Your task to perform on an android device: Show the shopping cart on target. Search for logitech g910 on target, select the first entry, add it to the cart, then select checkout. Image 0: 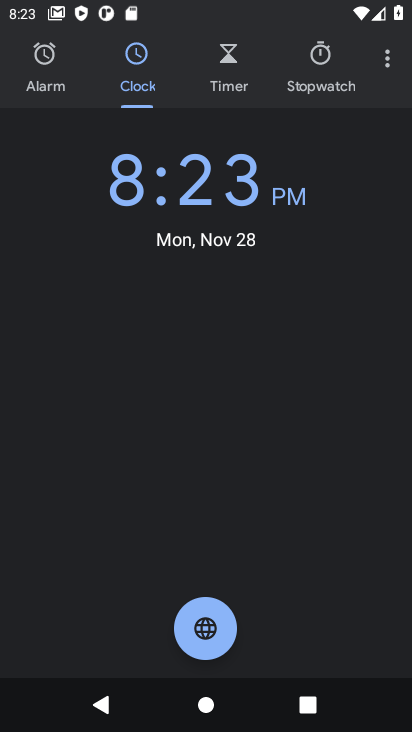
Step 0: press home button
Your task to perform on an android device: Show the shopping cart on target. Search for logitech g910 on target, select the first entry, add it to the cart, then select checkout. Image 1: 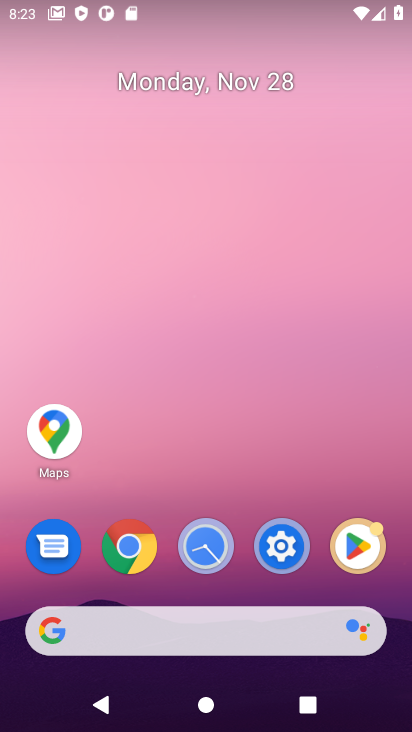
Step 1: click (130, 550)
Your task to perform on an android device: Show the shopping cart on target. Search for logitech g910 on target, select the first entry, add it to the cart, then select checkout. Image 2: 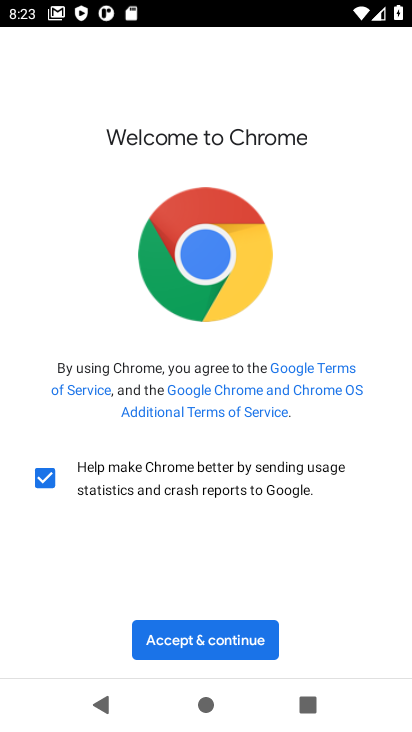
Step 2: click (187, 634)
Your task to perform on an android device: Show the shopping cart on target. Search for logitech g910 on target, select the first entry, add it to the cart, then select checkout. Image 3: 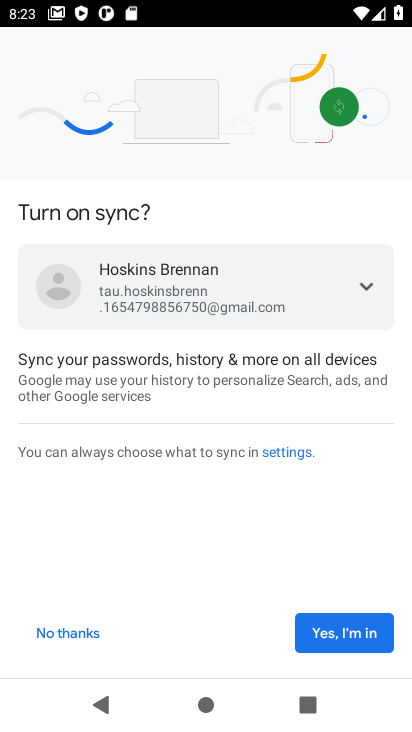
Step 3: click (360, 637)
Your task to perform on an android device: Show the shopping cart on target. Search for logitech g910 on target, select the first entry, add it to the cart, then select checkout. Image 4: 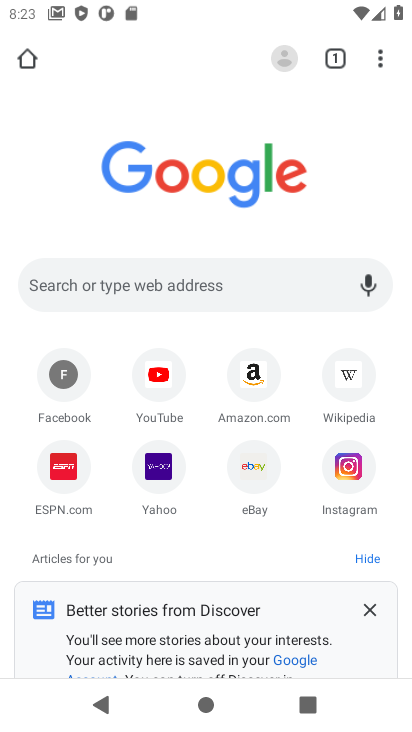
Step 4: click (98, 282)
Your task to perform on an android device: Show the shopping cart on target. Search for logitech g910 on target, select the first entry, add it to the cart, then select checkout. Image 5: 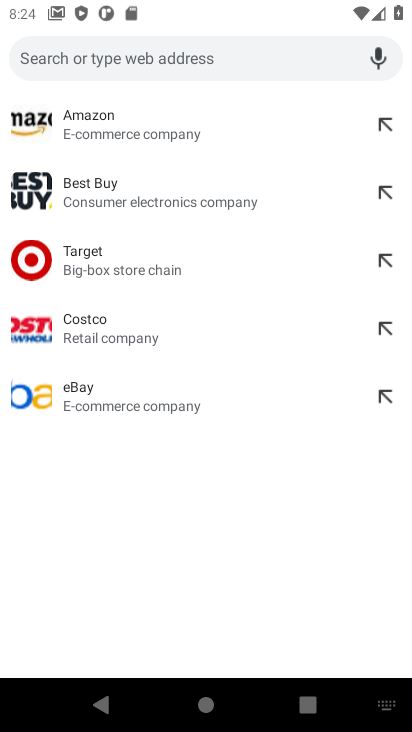
Step 5: click (90, 263)
Your task to perform on an android device: Show the shopping cart on target. Search for logitech g910 on target, select the first entry, add it to the cart, then select checkout. Image 6: 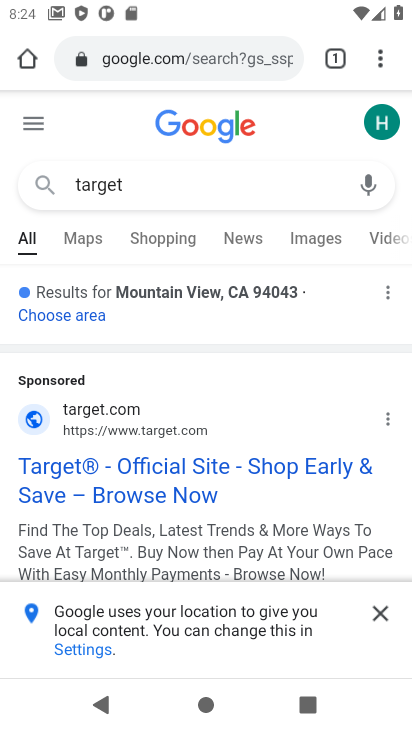
Step 6: click (380, 621)
Your task to perform on an android device: Show the shopping cart on target. Search for logitech g910 on target, select the first entry, add it to the cart, then select checkout. Image 7: 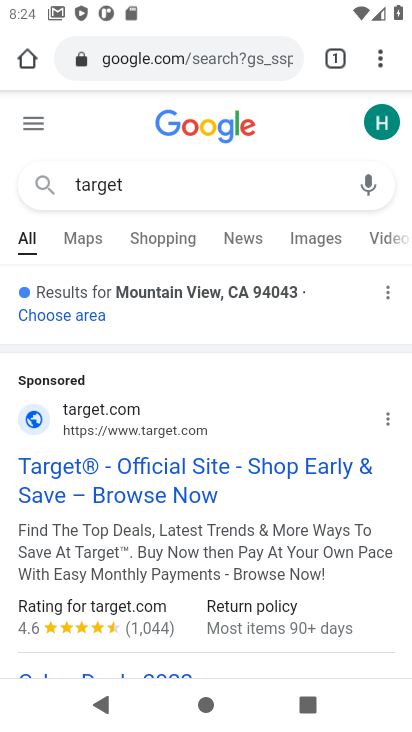
Step 7: click (138, 463)
Your task to perform on an android device: Show the shopping cart on target. Search for logitech g910 on target, select the first entry, add it to the cart, then select checkout. Image 8: 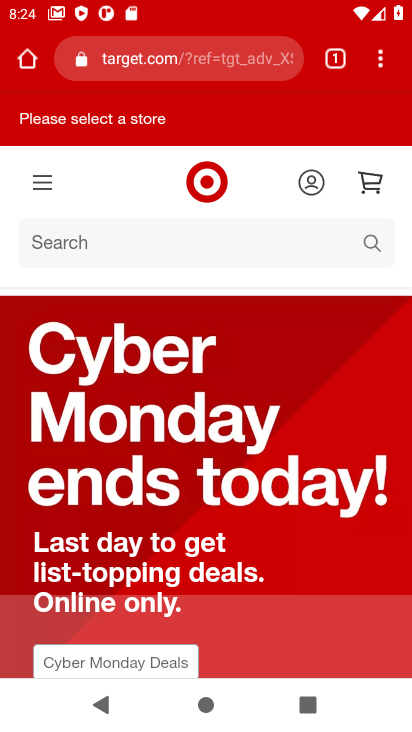
Step 8: click (366, 183)
Your task to perform on an android device: Show the shopping cart on target. Search for logitech g910 on target, select the first entry, add it to the cart, then select checkout. Image 9: 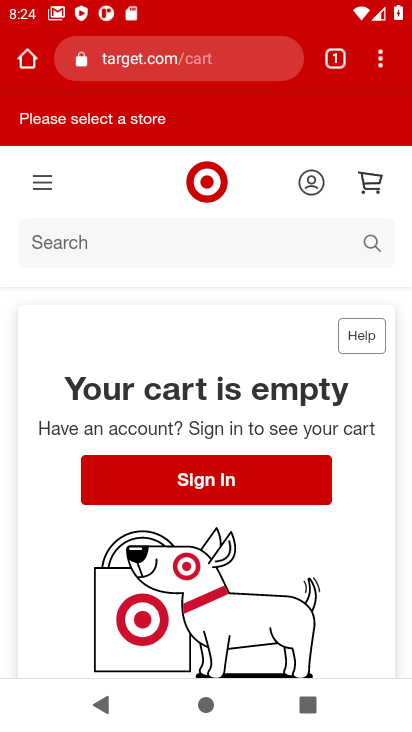
Step 9: click (152, 246)
Your task to perform on an android device: Show the shopping cart on target. Search for logitech g910 on target, select the first entry, add it to the cart, then select checkout. Image 10: 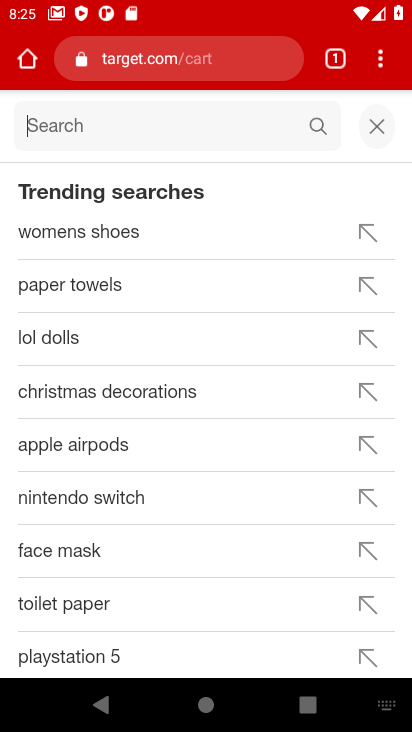
Step 10: type "logitech g910 "
Your task to perform on an android device: Show the shopping cart on target. Search for logitech g910 on target, select the first entry, add it to the cart, then select checkout. Image 11: 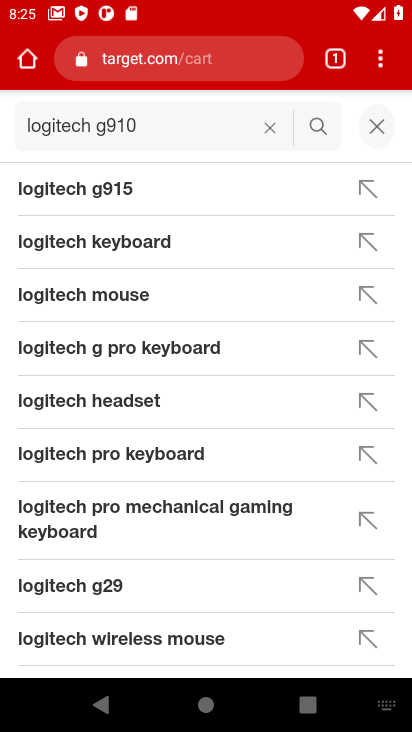
Step 11: click (315, 125)
Your task to perform on an android device: Show the shopping cart on target. Search for logitech g910 on target, select the first entry, add it to the cart, then select checkout. Image 12: 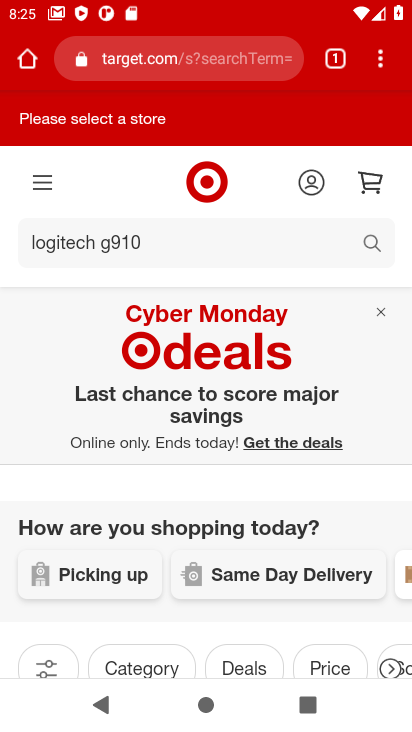
Step 12: drag from (173, 617) to (183, 272)
Your task to perform on an android device: Show the shopping cart on target. Search for logitech g910 on target, select the first entry, add it to the cart, then select checkout. Image 13: 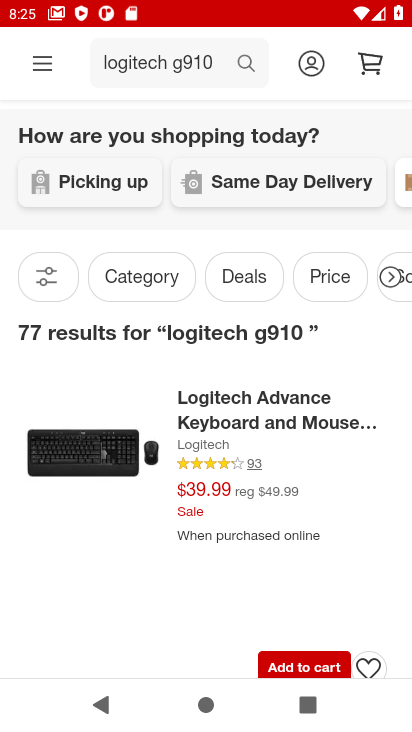
Step 13: click (96, 456)
Your task to perform on an android device: Show the shopping cart on target. Search for logitech g910 on target, select the first entry, add it to the cart, then select checkout. Image 14: 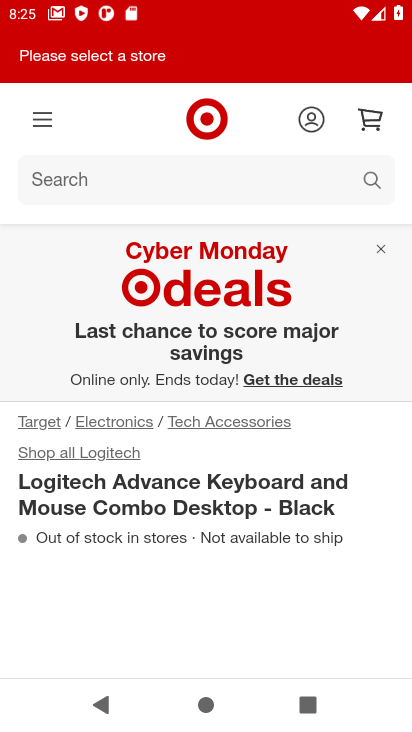
Step 14: drag from (169, 630) to (190, 380)
Your task to perform on an android device: Show the shopping cart on target. Search for logitech g910 on target, select the first entry, add it to the cart, then select checkout. Image 15: 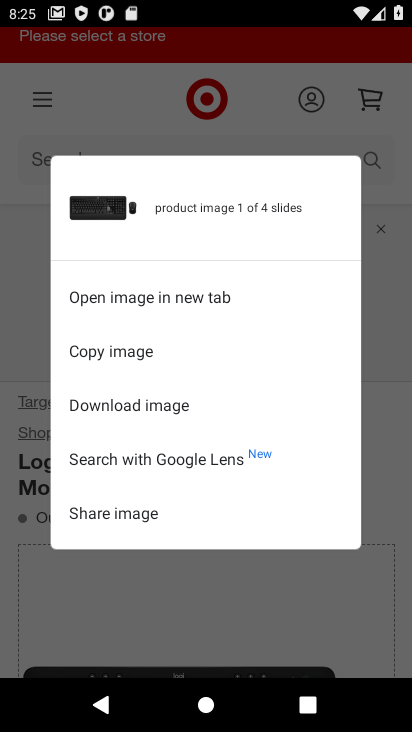
Step 15: click (357, 592)
Your task to perform on an android device: Show the shopping cart on target. Search for logitech g910 on target, select the first entry, add it to the cart, then select checkout. Image 16: 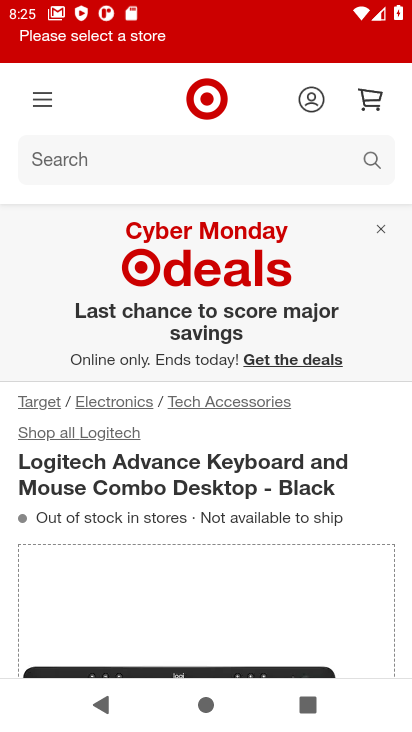
Step 16: drag from (357, 592) to (338, 173)
Your task to perform on an android device: Show the shopping cart on target. Search for logitech g910 on target, select the first entry, add it to the cart, then select checkout. Image 17: 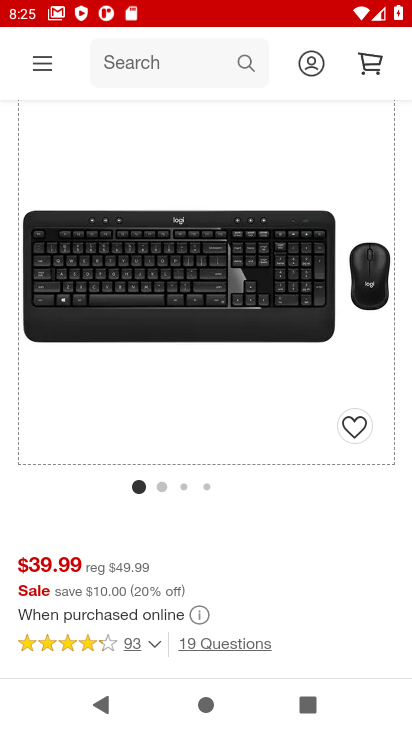
Step 17: drag from (305, 599) to (314, 258)
Your task to perform on an android device: Show the shopping cart on target. Search for logitech g910 on target, select the first entry, add it to the cart, then select checkout. Image 18: 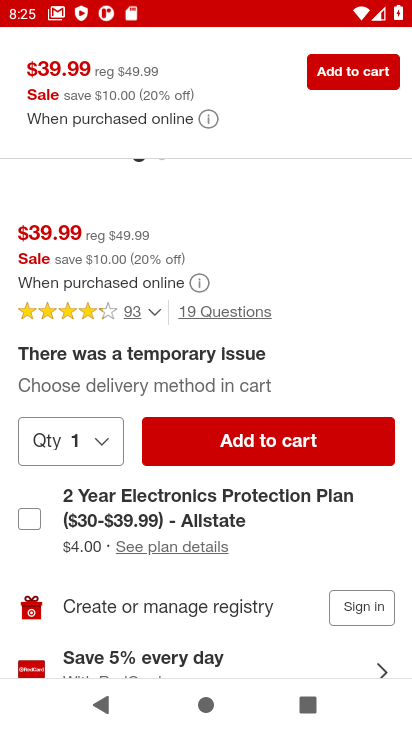
Step 18: click (247, 443)
Your task to perform on an android device: Show the shopping cart on target. Search for logitech g910 on target, select the first entry, add it to the cart, then select checkout. Image 19: 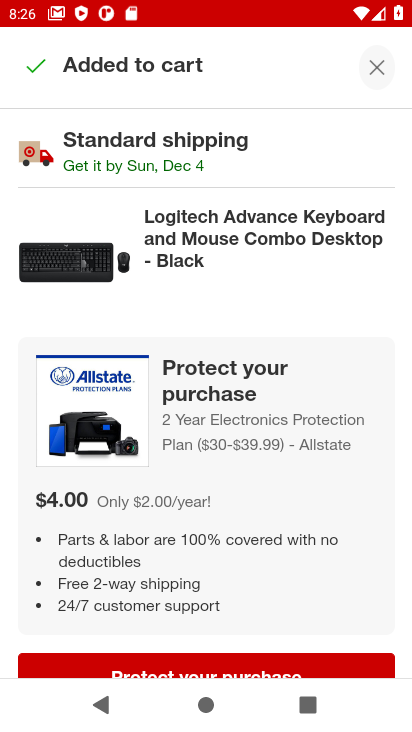
Step 19: drag from (268, 601) to (264, 306)
Your task to perform on an android device: Show the shopping cart on target. Search for logitech g910 on target, select the first entry, add it to the cart, then select checkout. Image 20: 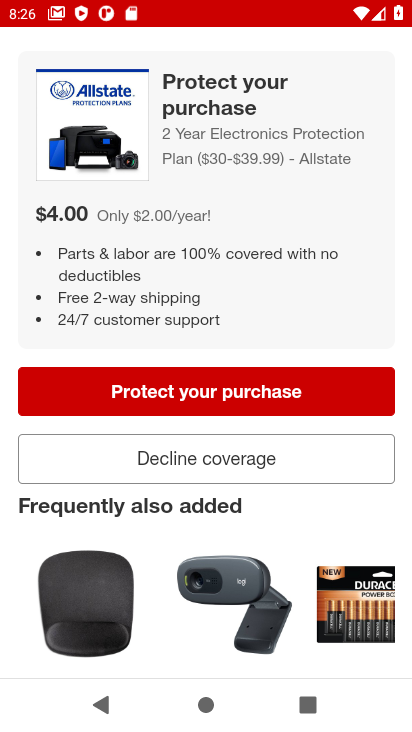
Step 20: drag from (258, 532) to (293, 53)
Your task to perform on an android device: Show the shopping cart on target. Search for logitech g910 on target, select the first entry, add it to the cart, then select checkout. Image 21: 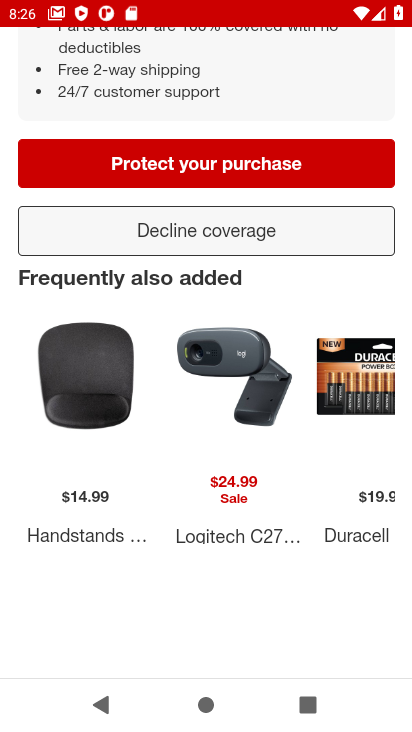
Step 21: click (215, 227)
Your task to perform on an android device: Show the shopping cart on target. Search for logitech g910 on target, select the first entry, add it to the cart, then select checkout. Image 22: 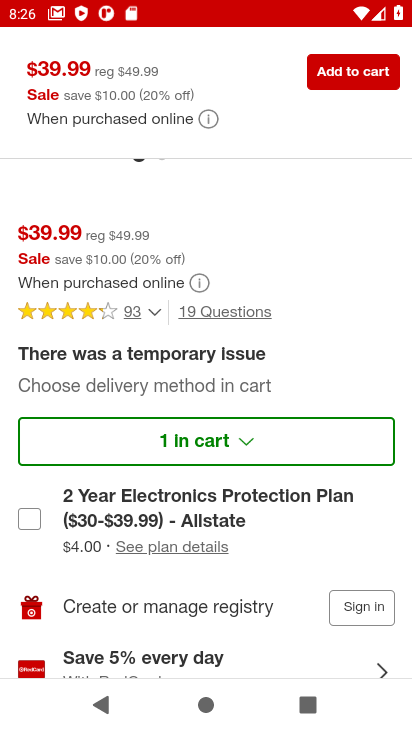
Step 22: drag from (260, 382) to (258, 176)
Your task to perform on an android device: Show the shopping cart on target. Search for logitech g910 on target, select the first entry, add it to the cart, then select checkout. Image 23: 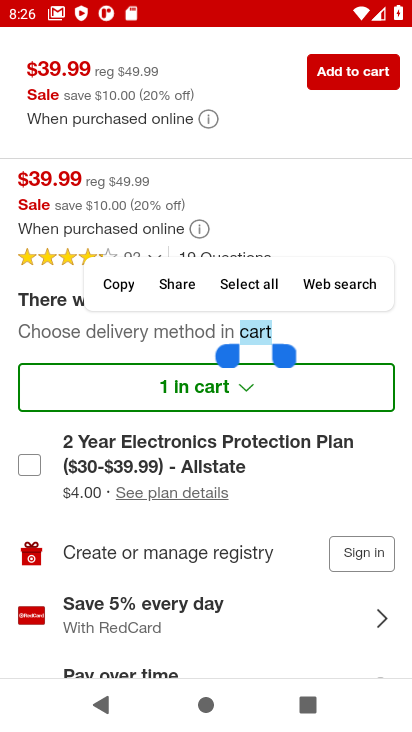
Step 23: drag from (230, 616) to (223, 205)
Your task to perform on an android device: Show the shopping cart on target. Search for logitech g910 on target, select the first entry, add it to the cart, then select checkout. Image 24: 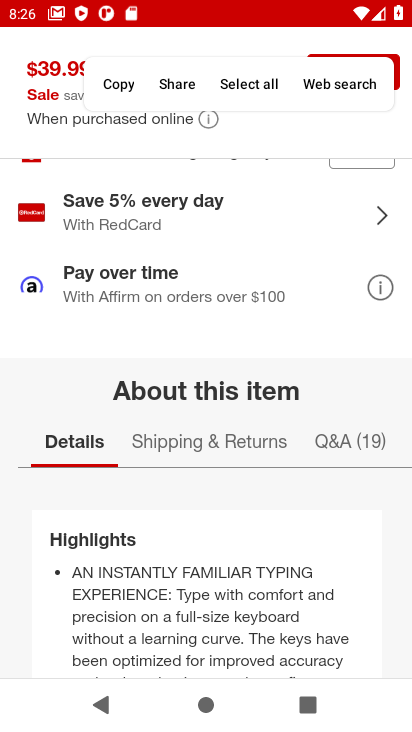
Step 24: drag from (233, 598) to (245, 266)
Your task to perform on an android device: Show the shopping cart on target. Search for logitech g910 on target, select the first entry, add it to the cart, then select checkout. Image 25: 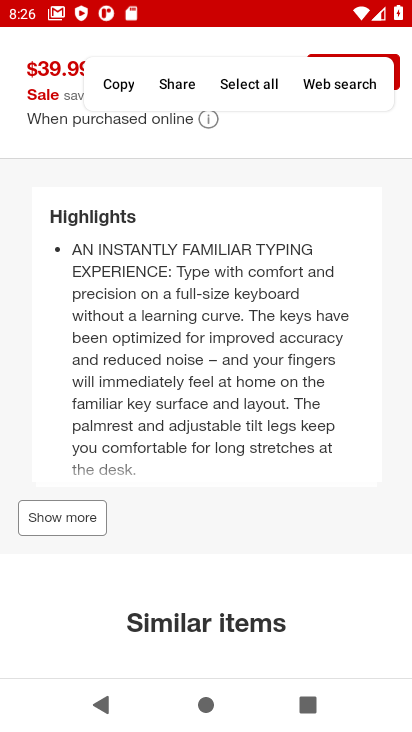
Step 25: drag from (251, 612) to (255, 116)
Your task to perform on an android device: Show the shopping cart on target. Search for logitech g910 on target, select the first entry, add it to the cart, then select checkout. Image 26: 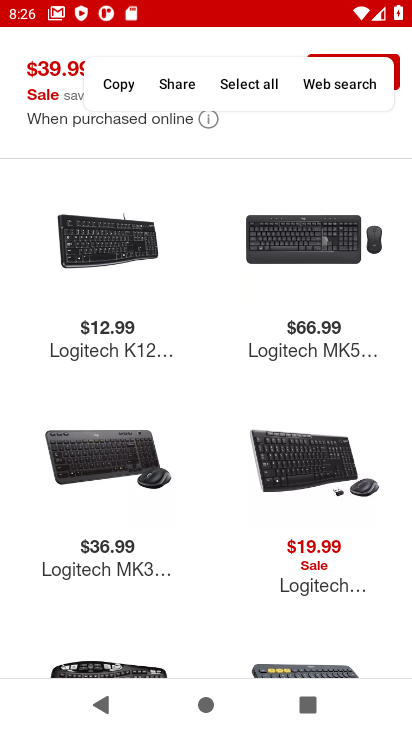
Step 26: drag from (202, 642) to (186, 171)
Your task to perform on an android device: Show the shopping cart on target. Search for logitech g910 on target, select the first entry, add it to the cart, then select checkout. Image 27: 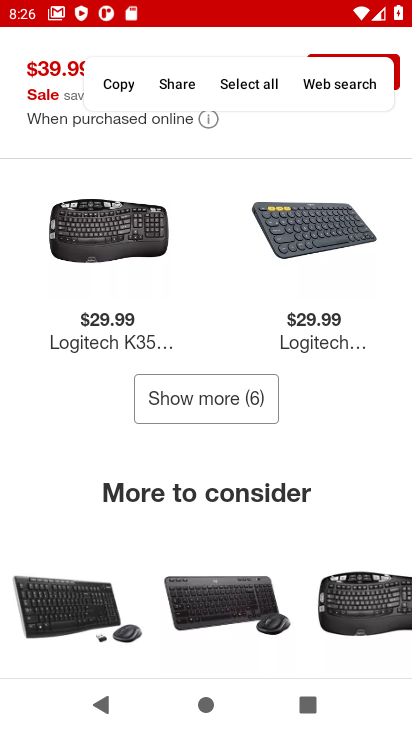
Step 27: press back button
Your task to perform on an android device: Show the shopping cart on target. Search for logitech g910 on target, select the first entry, add it to the cart, then select checkout. Image 28: 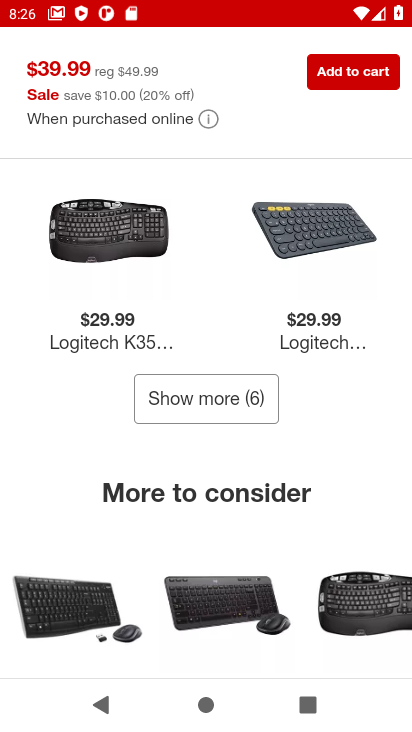
Step 28: press back button
Your task to perform on an android device: Show the shopping cart on target. Search for logitech g910 on target, select the first entry, add it to the cart, then select checkout. Image 29: 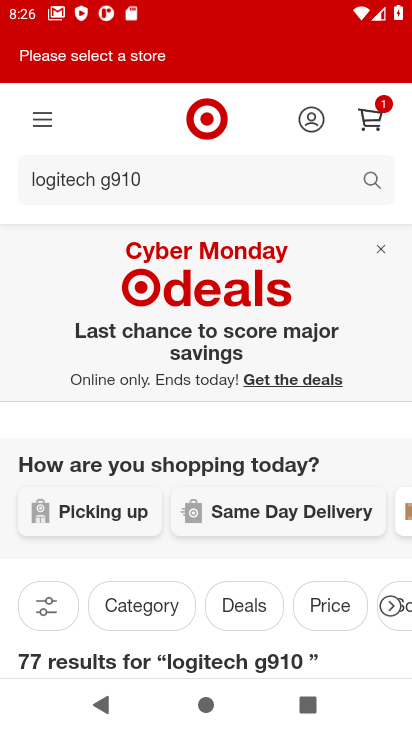
Step 29: click (373, 117)
Your task to perform on an android device: Show the shopping cart on target. Search for logitech g910 on target, select the first entry, add it to the cart, then select checkout. Image 30: 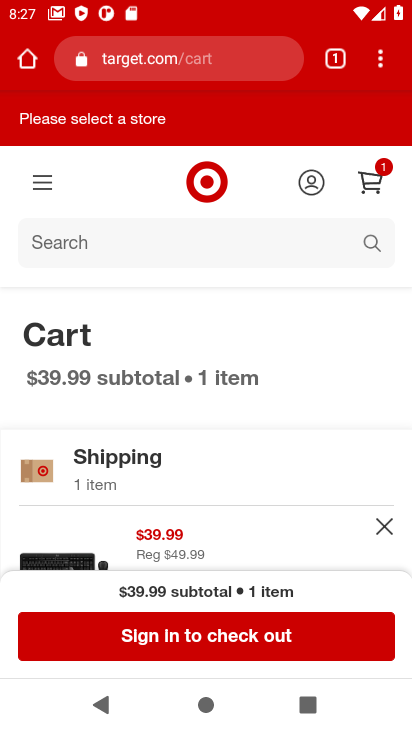
Step 30: click (212, 644)
Your task to perform on an android device: Show the shopping cart on target. Search for logitech g910 on target, select the first entry, add it to the cart, then select checkout. Image 31: 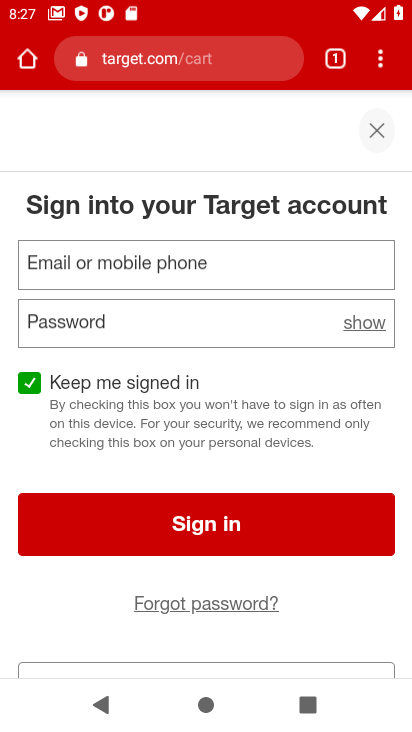
Step 31: task complete